Your task to perform on an android device: Open the stopwatch Image 0: 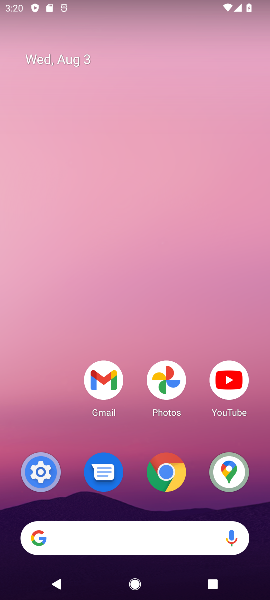
Step 0: drag from (190, 487) to (41, 33)
Your task to perform on an android device: Open the stopwatch Image 1: 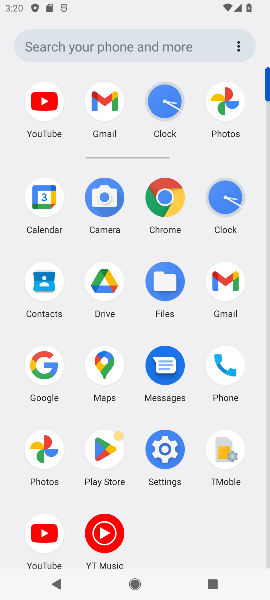
Step 1: click (222, 196)
Your task to perform on an android device: Open the stopwatch Image 2: 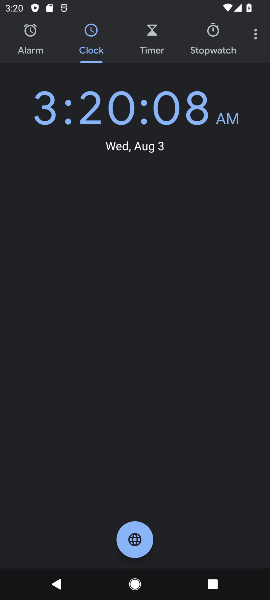
Step 2: click (220, 43)
Your task to perform on an android device: Open the stopwatch Image 3: 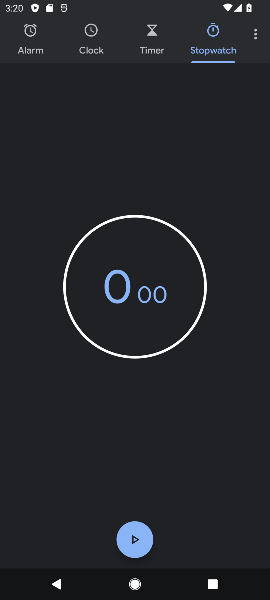
Step 3: task complete